Your task to perform on an android device: turn smart compose on in the gmail app Image 0: 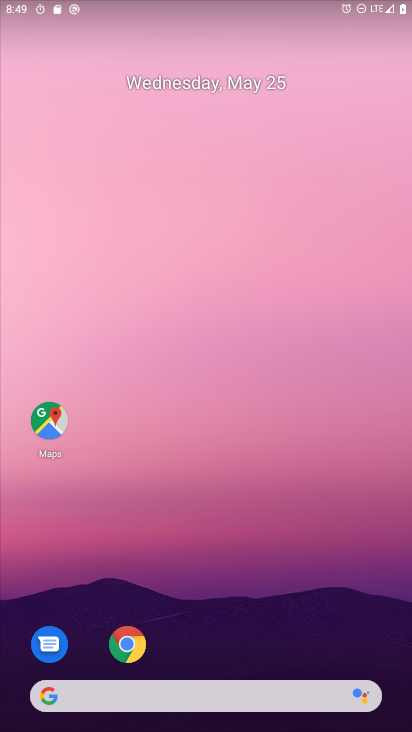
Step 0: drag from (371, 602) to (289, 22)
Your task to perform on an android device: turn smart compose on in the gmail app Image 1: 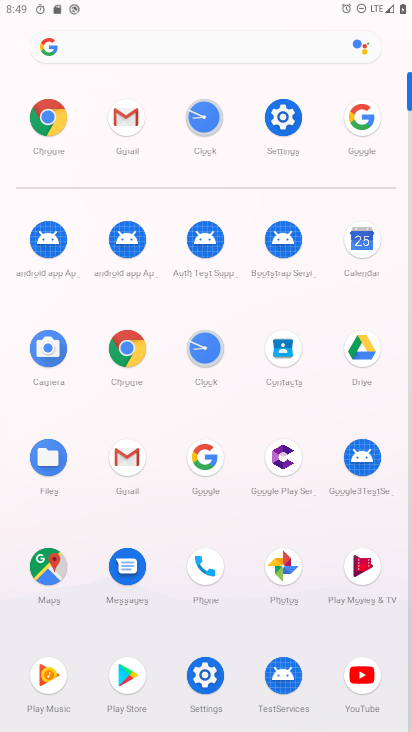
Step 1: click (122, 464)
Your task to perform on an android device: turn smart compose on in the gmail app Image 2: 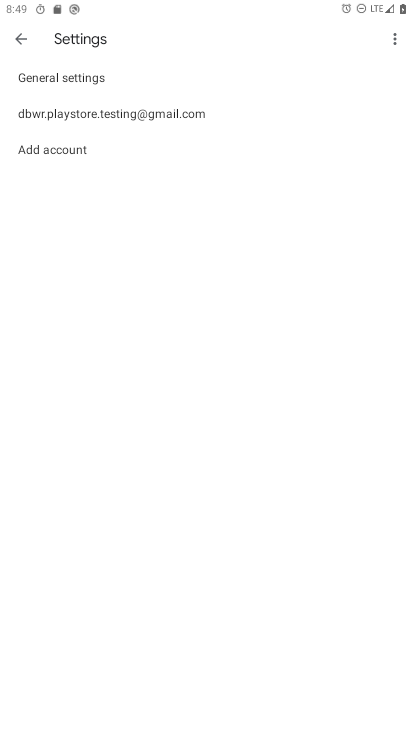
Step 2: click (189, 113)
Your task to perform on an android device: turn smart compose on in the gmail app Image 3: 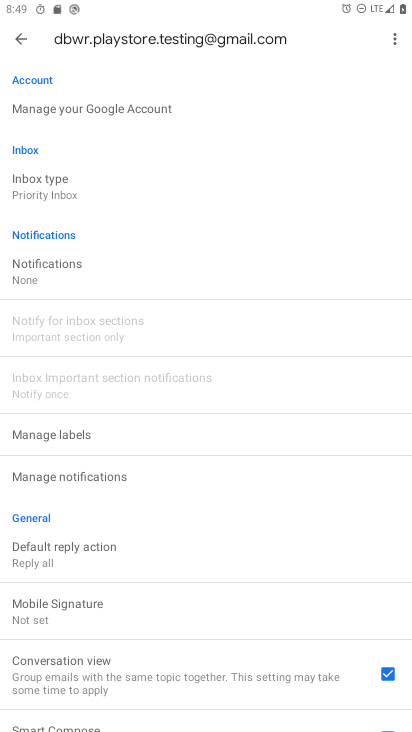
Step 3: task complete